Your task to perform on an android device: turn off javascript in the chrome app Image 0: 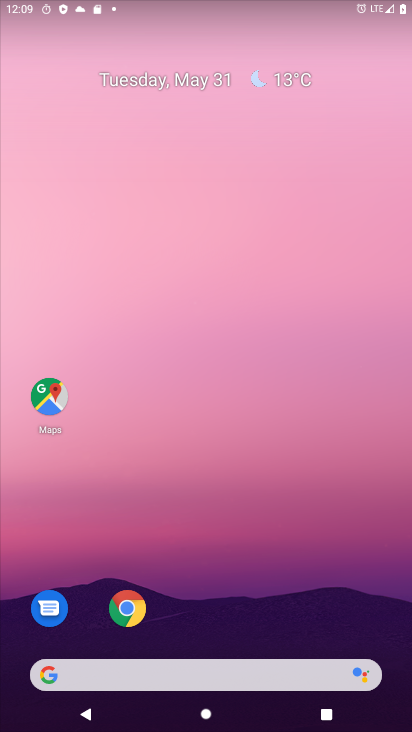
Step 0: click (126, 615)
Your task to perform on an android device: turn off javascript in the chrome app Image 1: 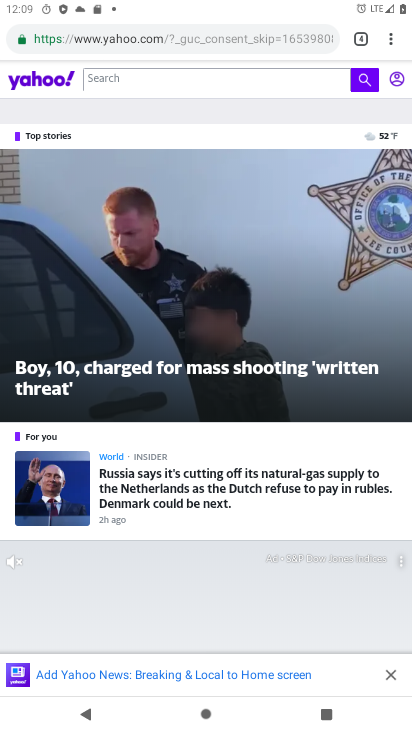
Step 1: click (391, 42)
Your task to perform on an android device: turn off javascript in the chrome app Image 2: 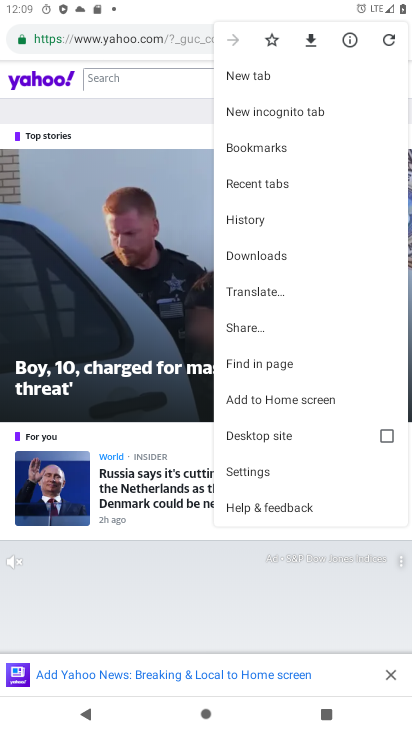
Step 2: click (245, 478)
Your task to perform on an android device: turn off javascript in the chrome app Image 3: 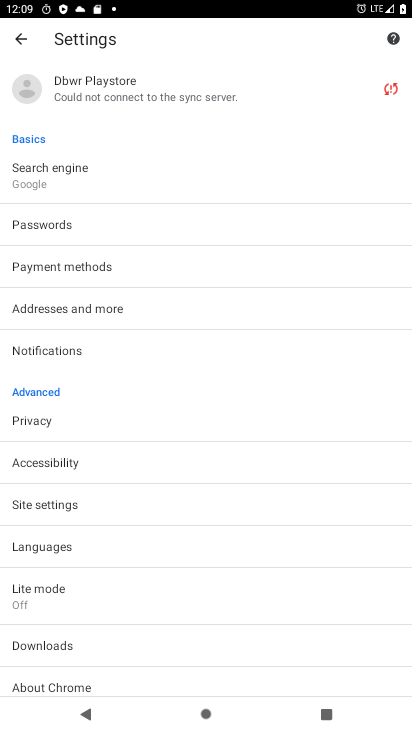
Step 3: click (39, 509)
Your task to perform on an android device: turn off javascript in the chrome app Image 4: 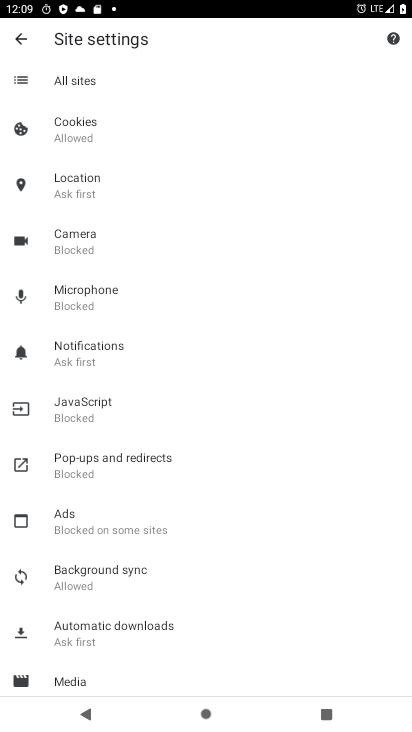
Step 4: click (56, 418)
Your task to perform on an android device: turn off javascript in the chrome app Image 5: 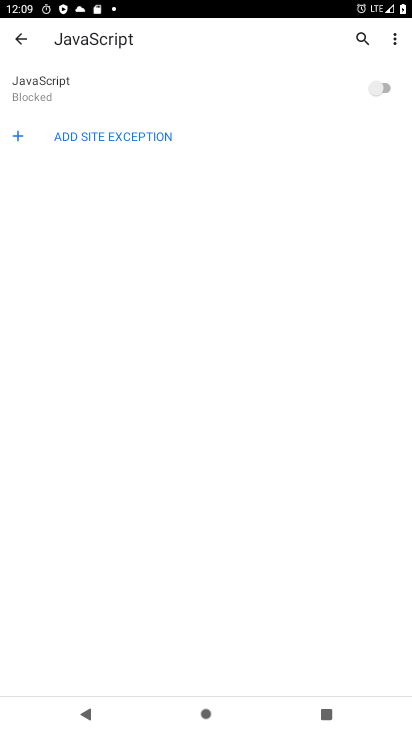
Step 5: task complete